Your task to perform on an android device: turn off picture-in-picture Image 0: 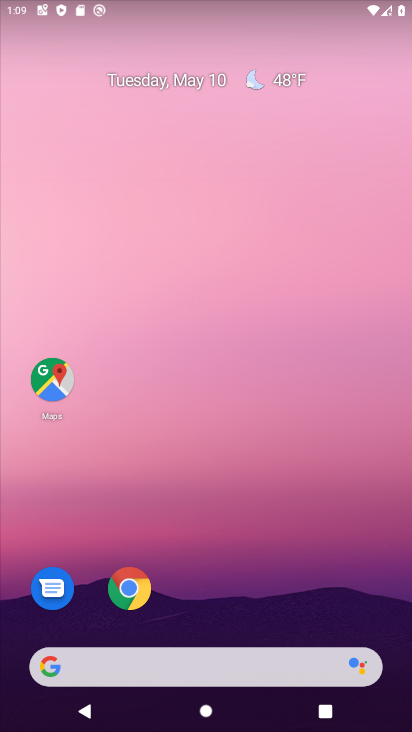
Step 0: drag from (207, 592) to (208, 108)
Your task to perform on an android device: turn off picture-in-picture Image 1: 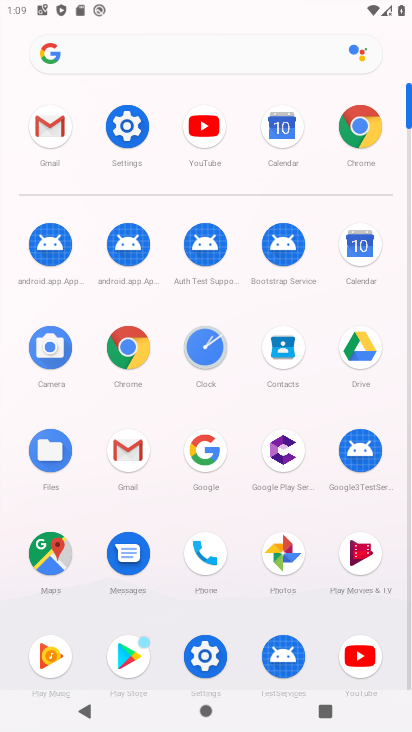
Step 1: click (147, 123)
Your task to perform on an android device: turn off picture-in-picture Image 2: 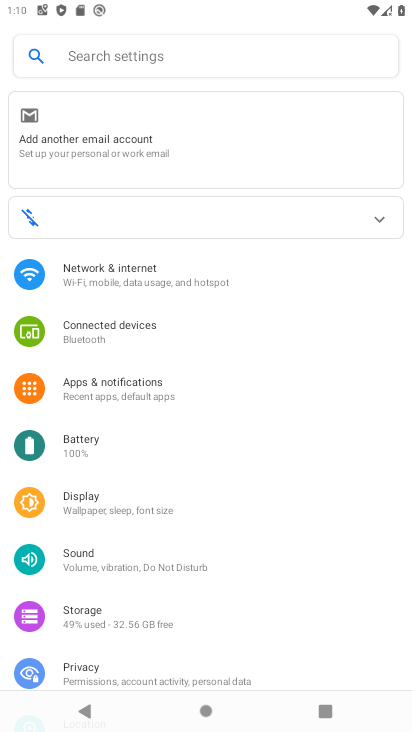
Step 2: click (139, 377)
Your task to perform on an android device: turn off picture-in-picture Image 3: 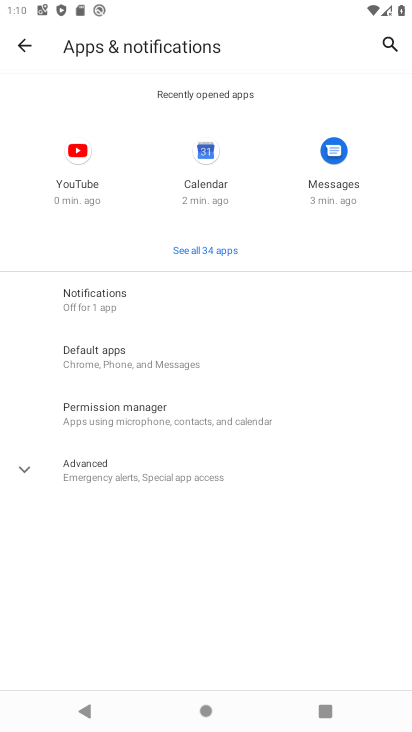
Step 3: click (148, 475)
Your task to perform on an android device: turn off picture-in-picture Image 4: 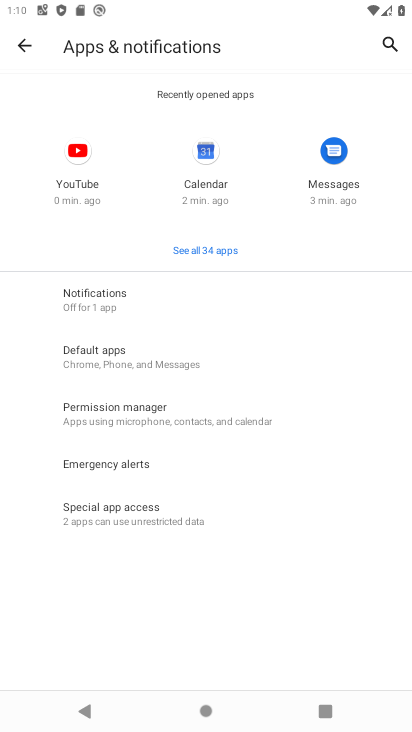
Step 4: click (172, 524)
Your task to perform on an android device: turn off picture-in-picture Image 5: 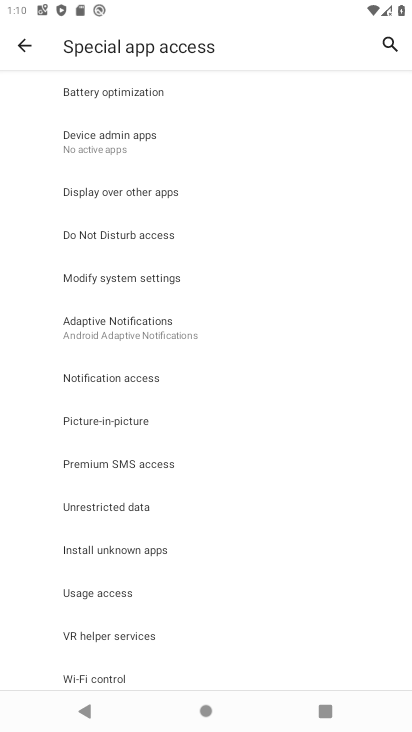
Step 5: click (119, 418)
Your task to perform on an android device: turn off picture-in-picture Image 6: 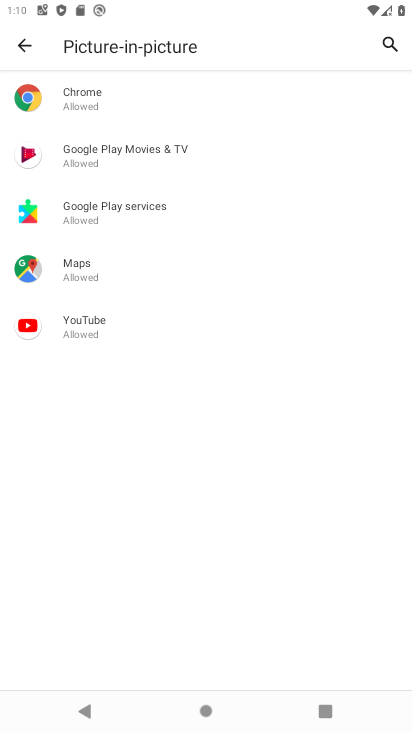
Step 6: click (101, 313)
Your task to perform on an android device: turn off picture-in-picture Image 7: 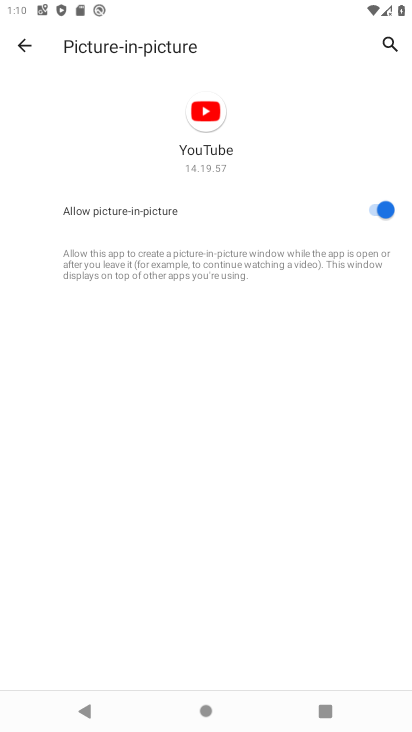
Step 7: click (381, 208)
Your task to perform on an android device: turn off picture-in-picture Image 8: 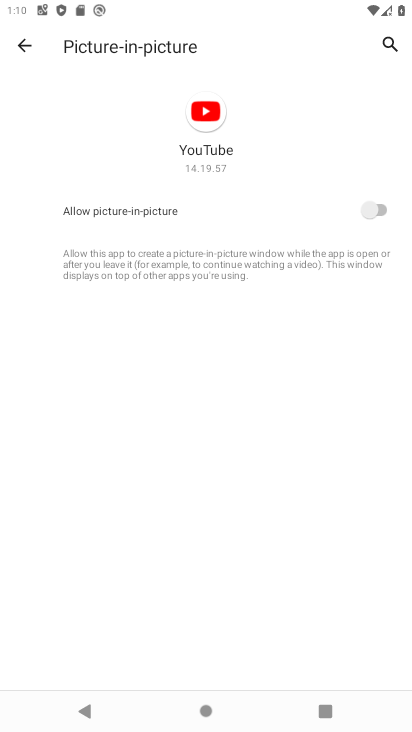
Step 8: task complete